Your task to perform on an android device: show emergency info Image 0: 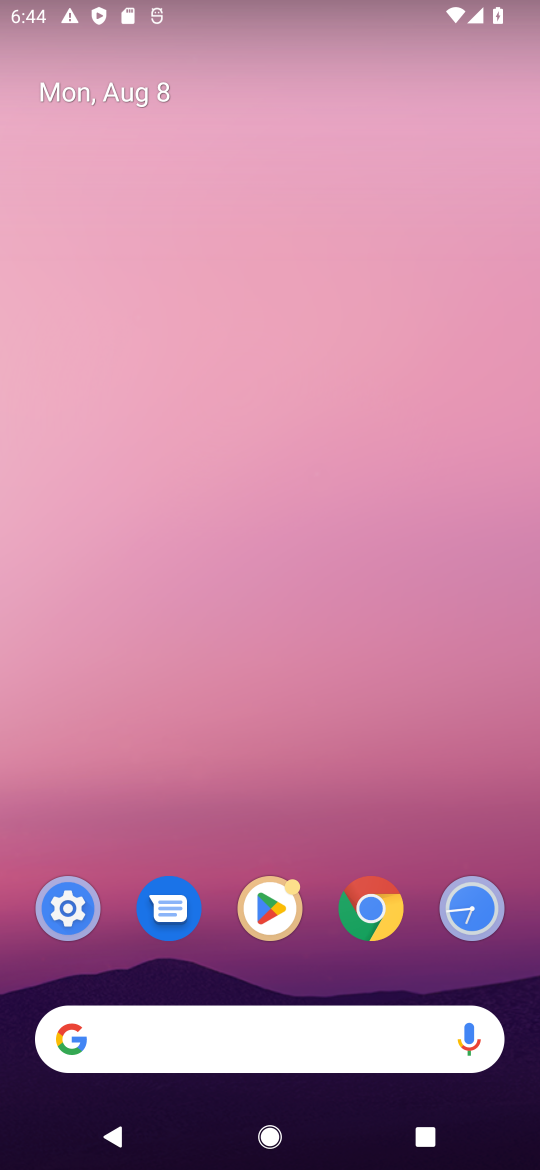
Step 0: drag from (230, 879) to (286, 186)
Your task to perform on an android device: show emergency info Image 1: 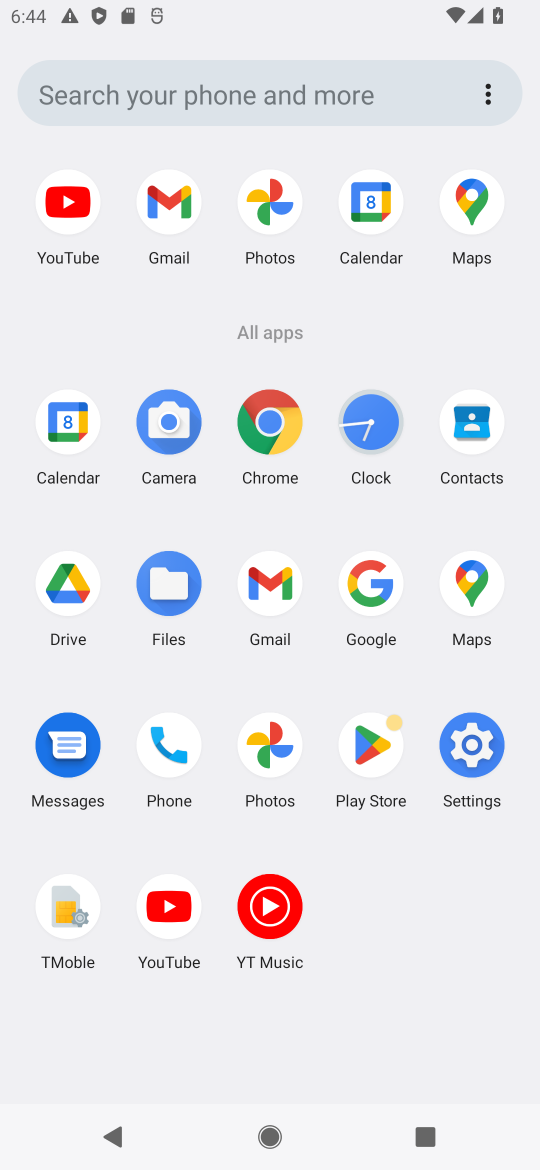
Step 1: click (476, 753)
Your task to perform on an android device: show emergency info Image 2: 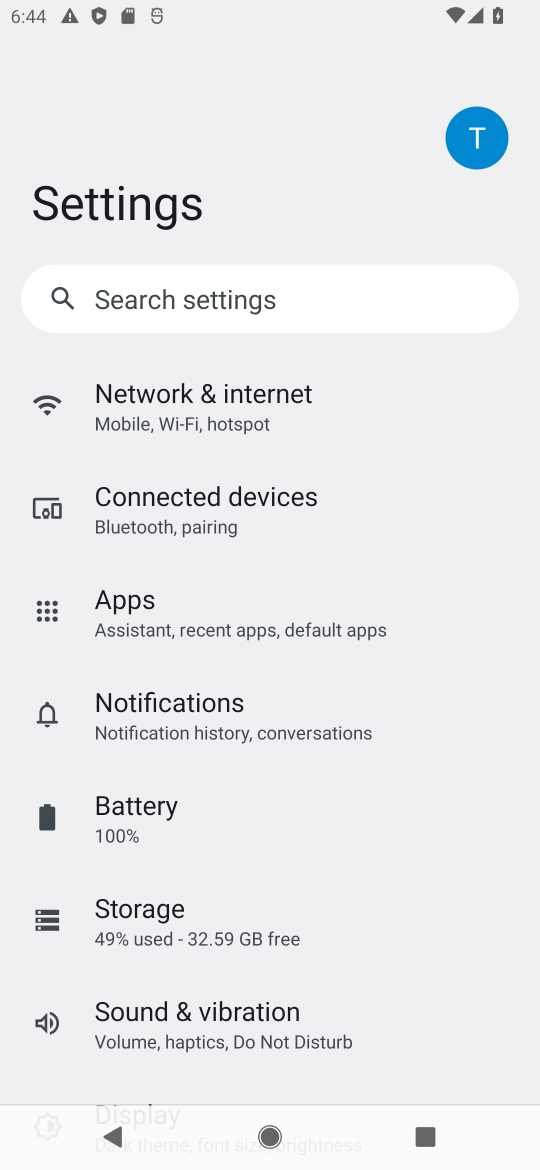
Step 2: drag from (258, 950) to (352, 267)
Your task to perform on an android device: show emergency info Image 3: 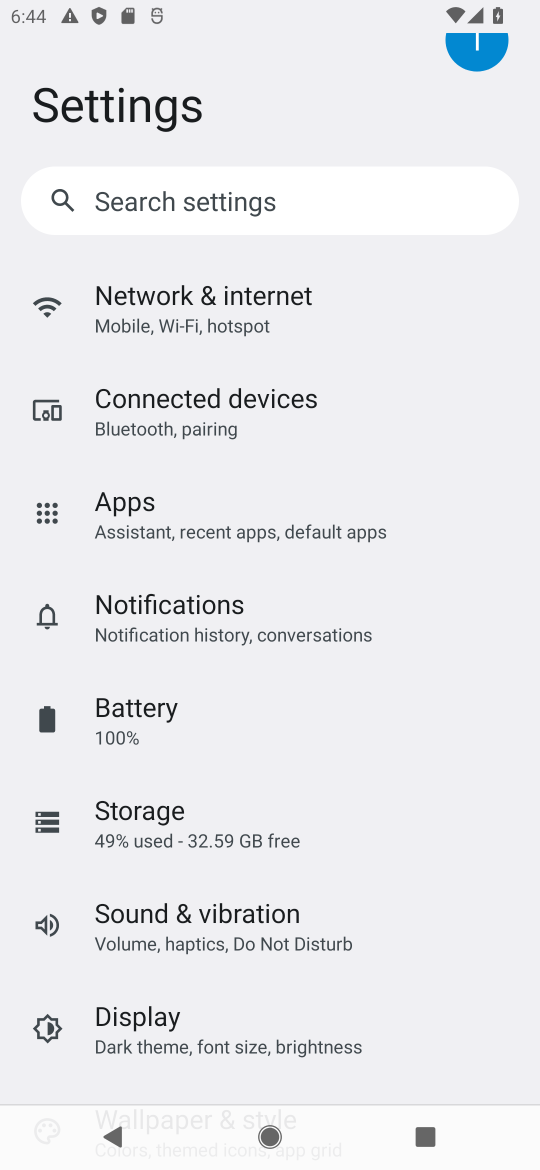
Step 3: drag from (197, 1020) to (275, 264)
Your task to perform on an android device: show emergency info Image 4: 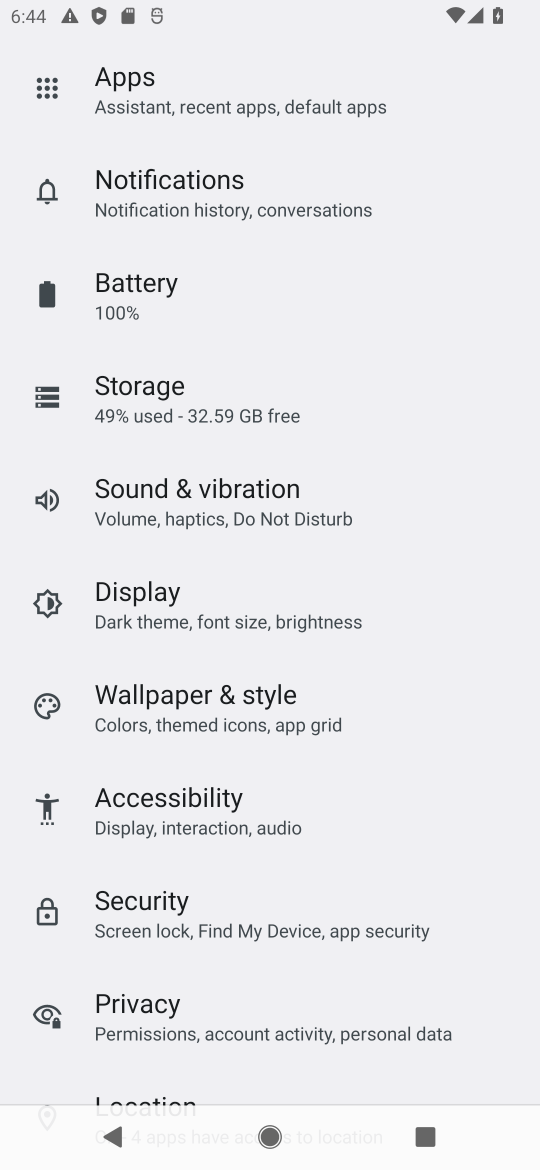
Step 4: drag from (153, 995) to (337, 182)
Your task to perform on an android device: show emergency info Image 5: 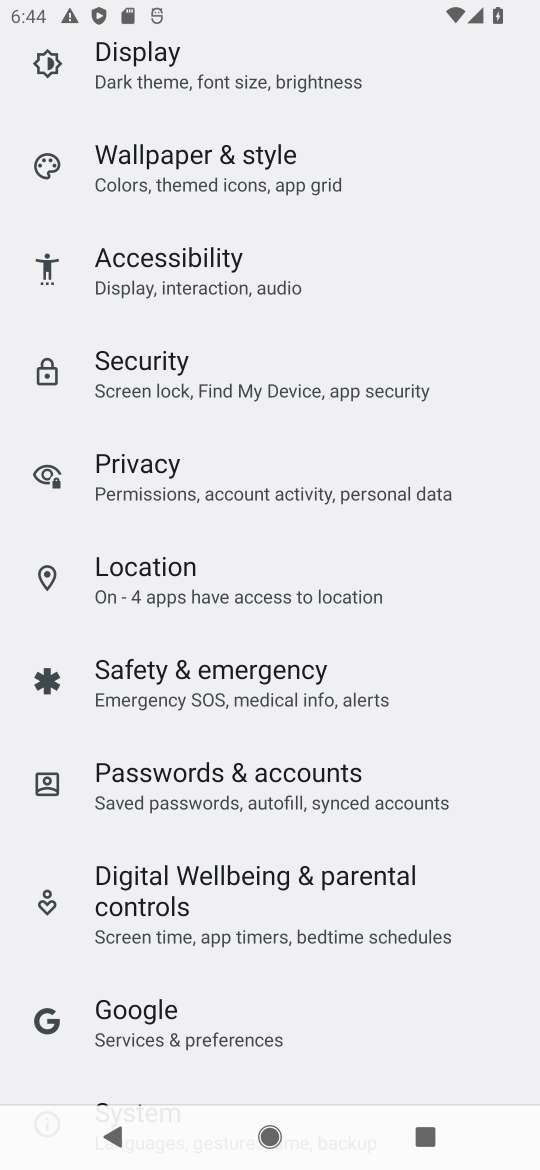
Step 5: click (278, 676)
Your task to perform on an android device: show emergency info Image 6: 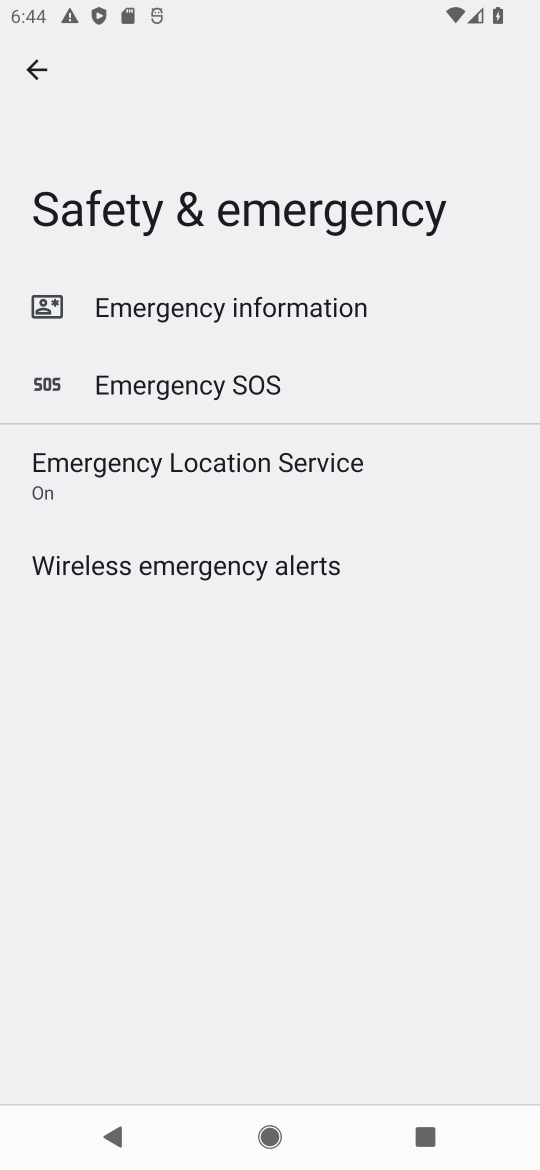
Step 6: click (228, 313)
Your task to perform on an android device: show emergency info Image 7: 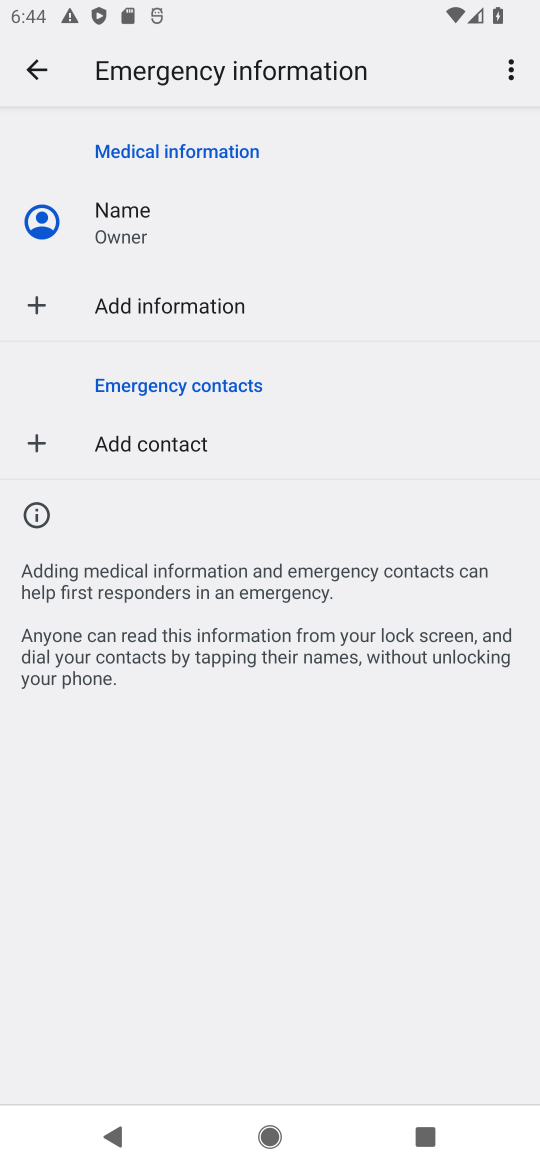
Step 7: task complete